Your task to perform on an android device: Open eBay Image 0: 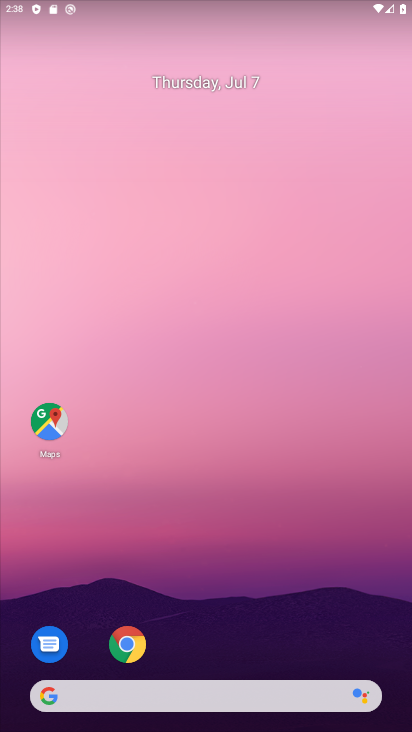
Step 0: click (103, 36)
Your task to perform on an android device: Open eBay Image 1: 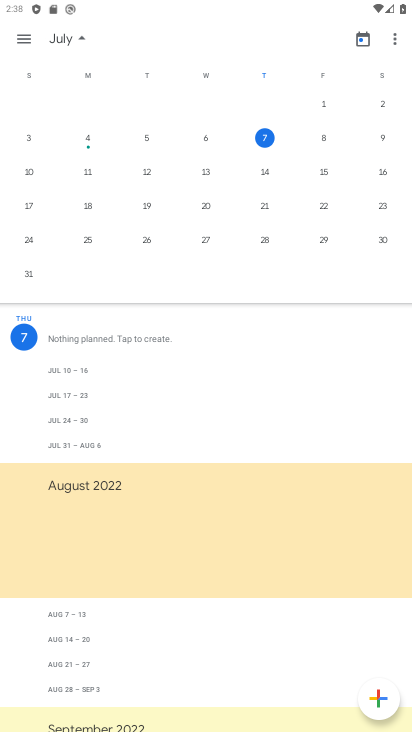
Step 1: press back button
Your task to perform on an android device: Open eBay Image 2: 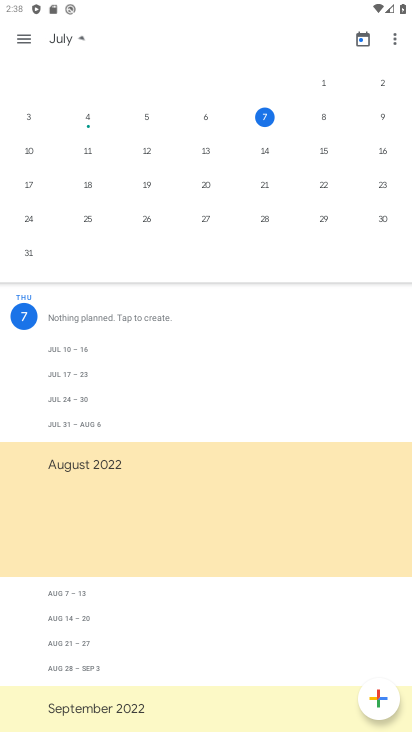
Step 2: press back button
Your task to perform on an android device: Open eBay Image 3: 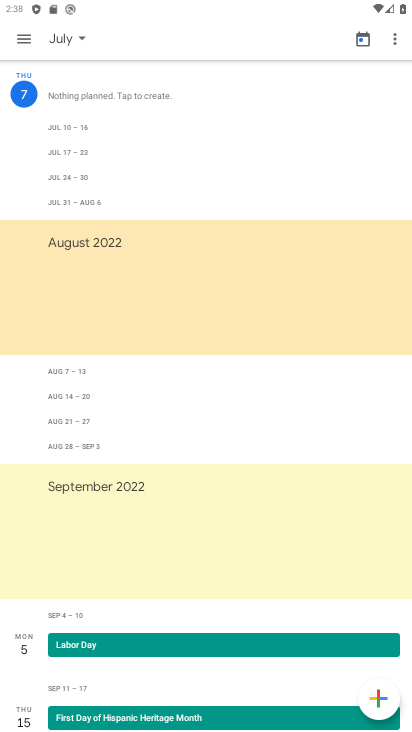
Step 3: press back button
Your task to perform on an android device: Open eBay Image 4: 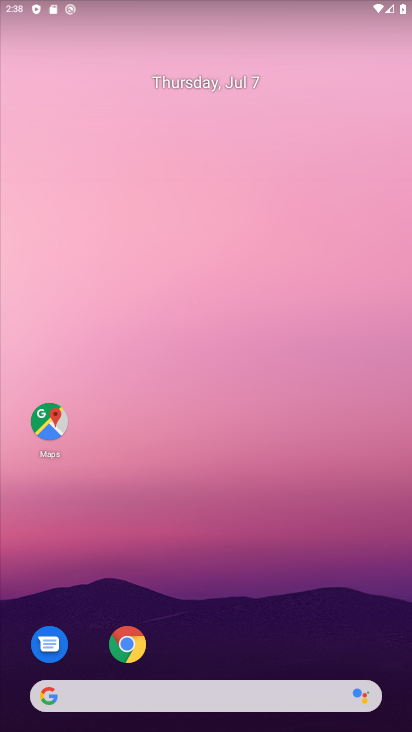
Step 4: press home button
Your task to perform on an android device: Open eBay Image 5: 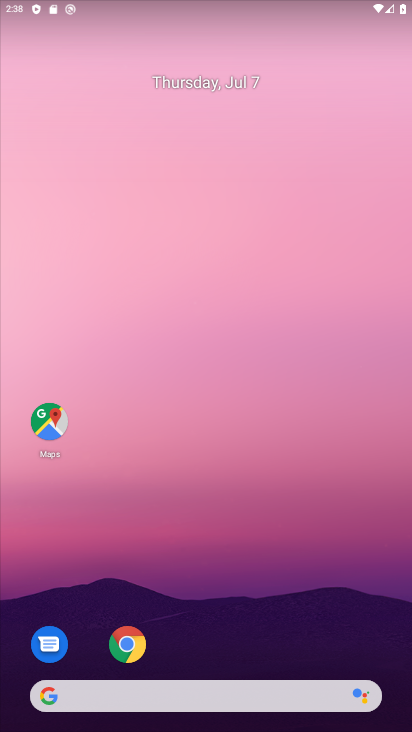
Step 5: press home button
Your task to perform on an android device: Open eBay Image 6: 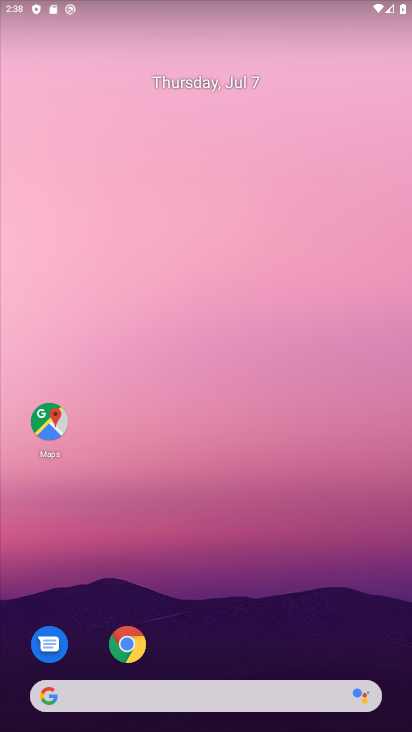
Step 6: drag from (291, 707) to (208, 331)
Your task to perform on an android device: Open eBay Image 7: 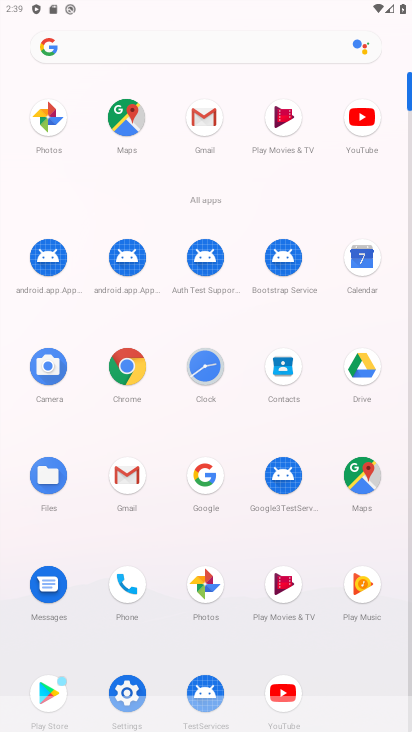
Step 7: click (136, 359)
Your task to perform on an android device: Open eBay Image 8: 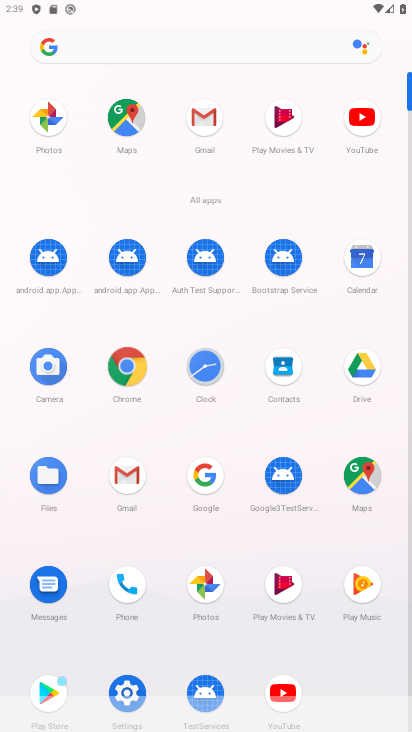
Step 8: click (136, 359)
Your task to perform on an android device: Open eBay Image 9: 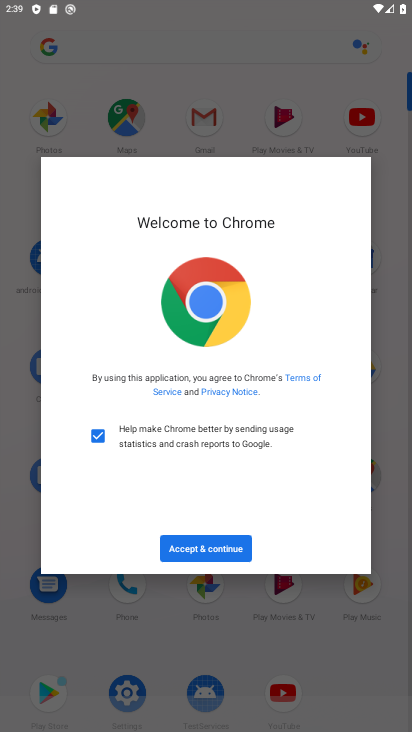
Step 9: click (205, 546)
Your task to perform on an android device: Open eBay Image 10: 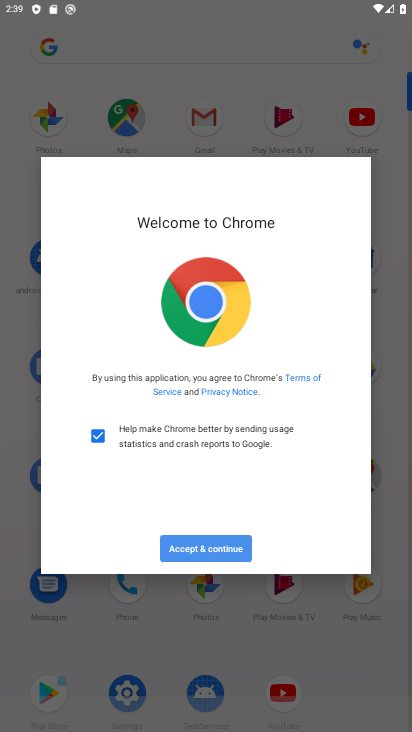
Step 10: click (206, 545)
Your task to perform on an android device: Open eBay Image 11: 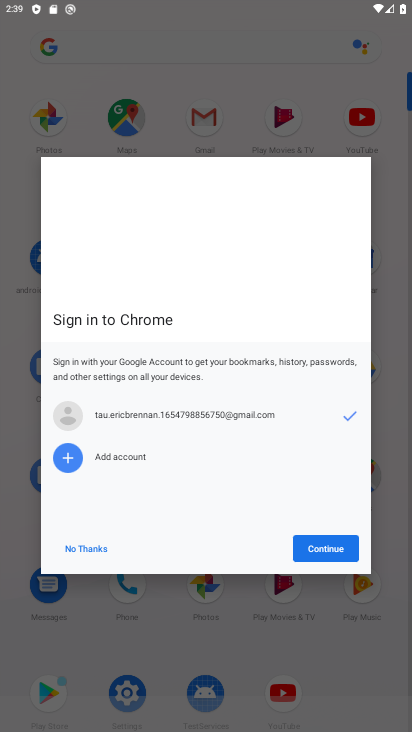
Step 11: click (206, 545)
Your task to perform on an android device: Open eBay Image 12: 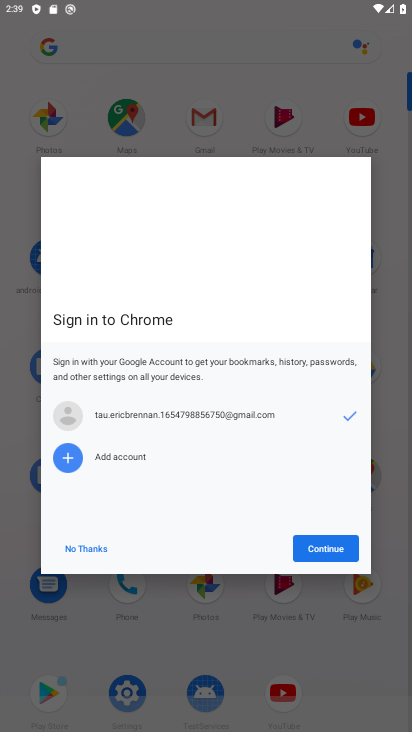
Step 12: click (206, 545)
Your task to perform on an android device: Open eBay Image 13: 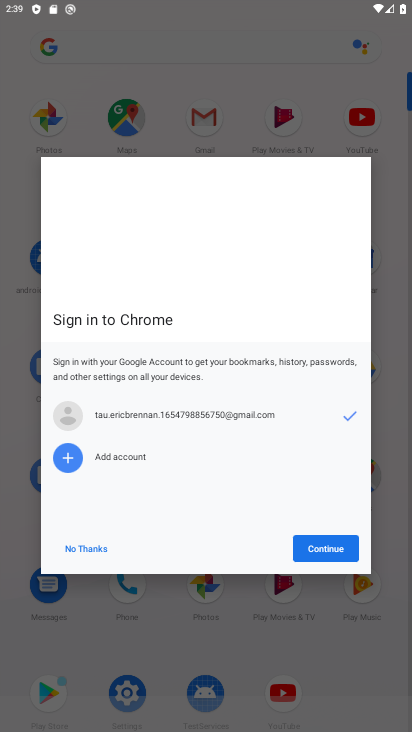
Step 13: click (206, 545)
Your task to perform on an android device: Open eBay Image 14: 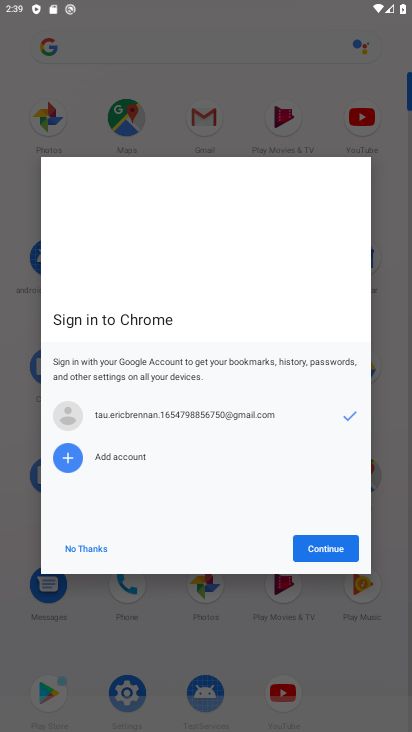
Step 14: click (323, 542)
Your task to perform on an android device: Open eBay Image 15: 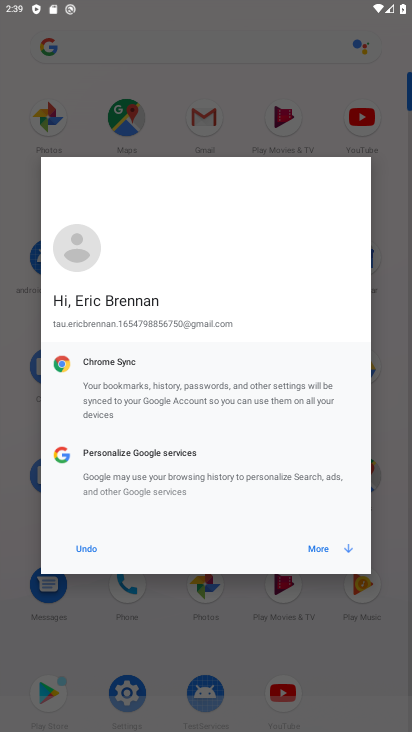
Step 15: click (326, 540)
Your task to perform on an android device: Open eBay Image 16: 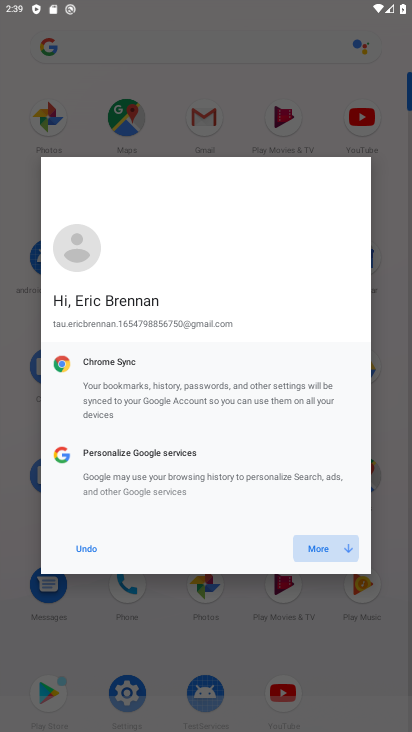
Step 16: click (331, 536)
Your task to perform on an android device: Open eBay Image 17: 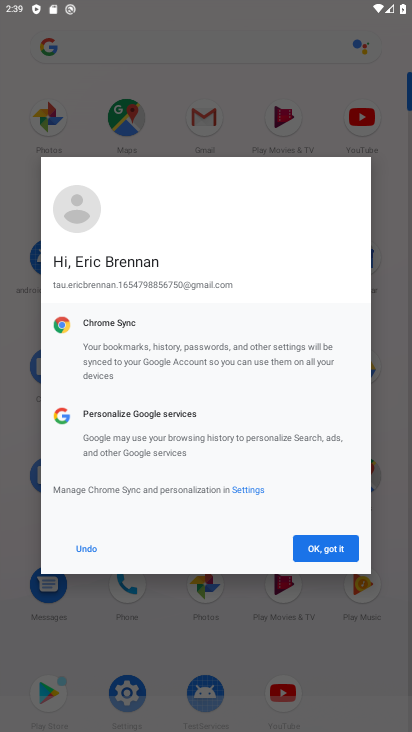
Step 17: click (333, 535)
Your task to perform on an android device: Open eBay Image 18: 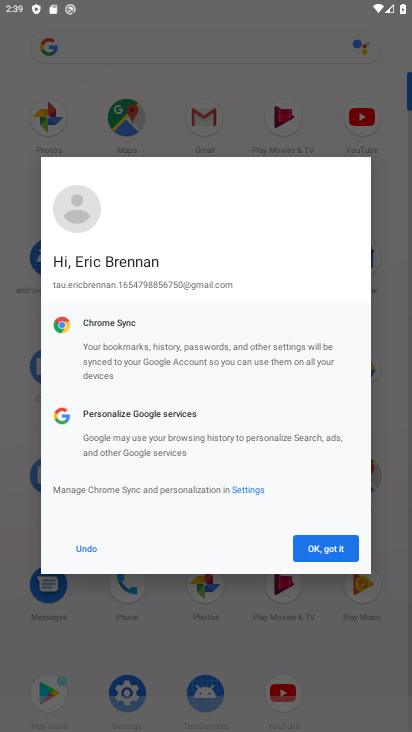
Step 18: click (343, 546)
Your task to perform on an android device: Open eBay Image 19: 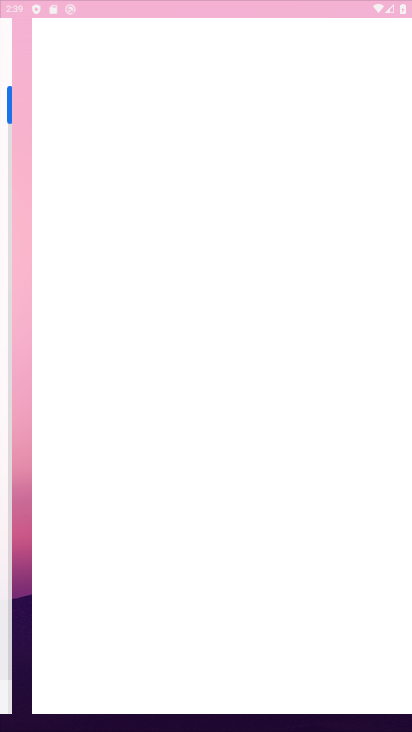
Step 19: click (343, 546)
Your task to perform on an android device: Open eBay Image 20: 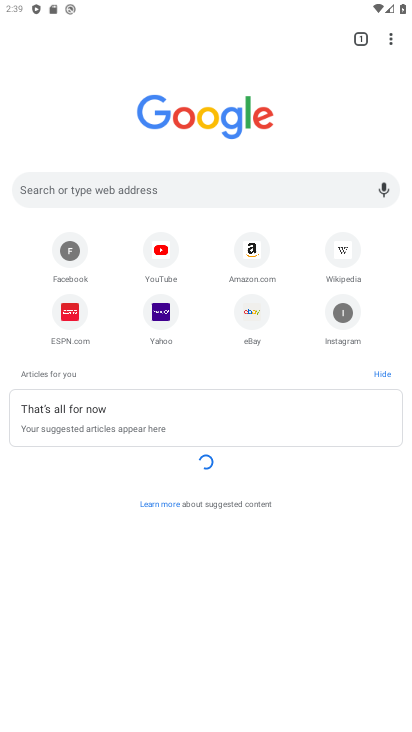
Step 20: click (255, 306)
Your task to perform on an android device: Open eBay Image 21: 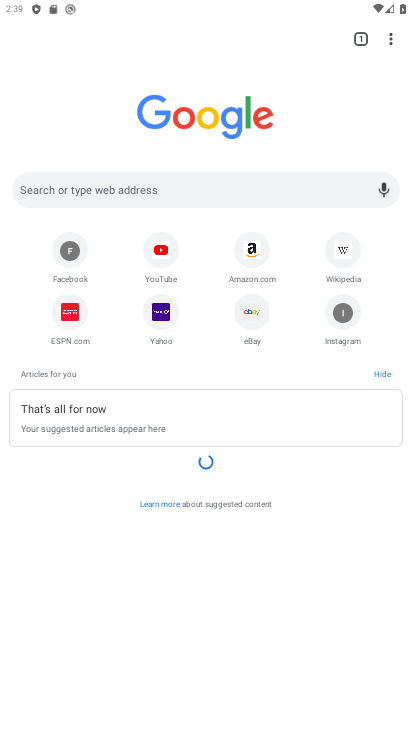
Step 21: click (256, 307)
Your task to perform on an android device: Open eBay Image 22: 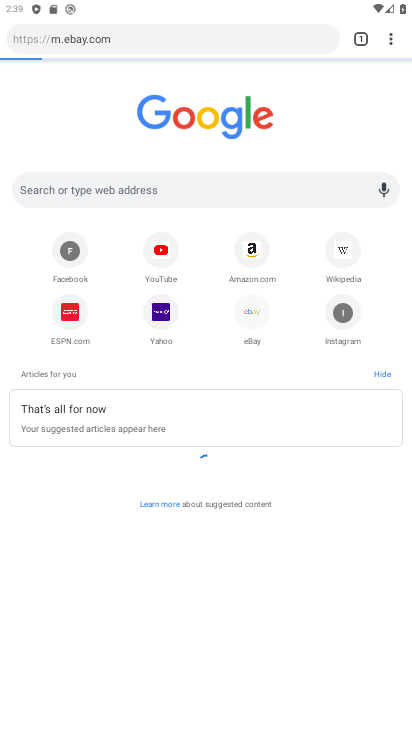
Step 22: click (257, 307)
Your task to perform on an android device: Open eBay Image 23: 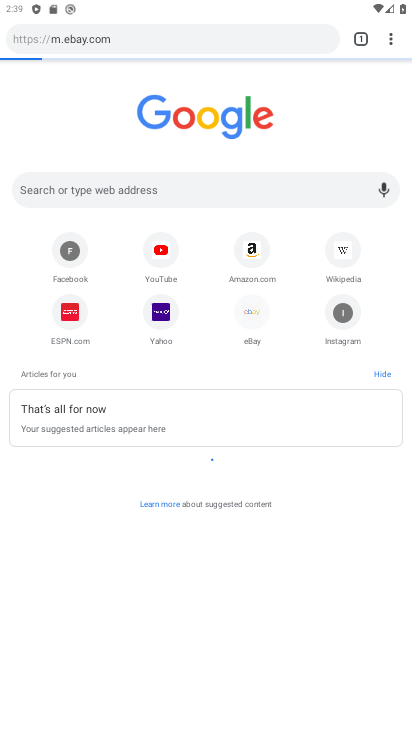
Step 23: click (257, 307)
Your task to perform on an android device: Open eBay Image 24: 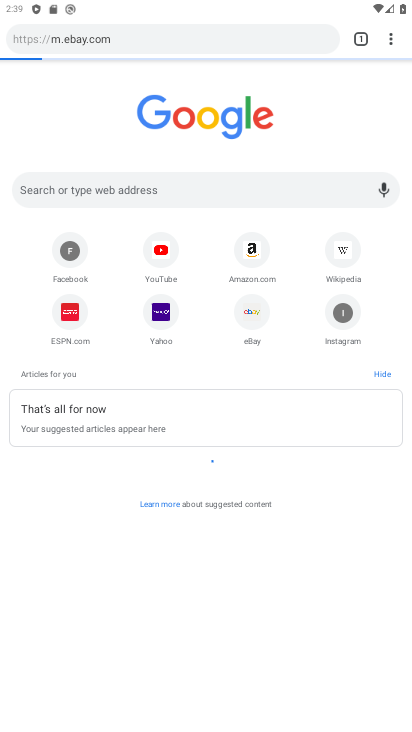
Step 24: click (257, 307)
Your task to perform on an android device: Open eBay Image 25: 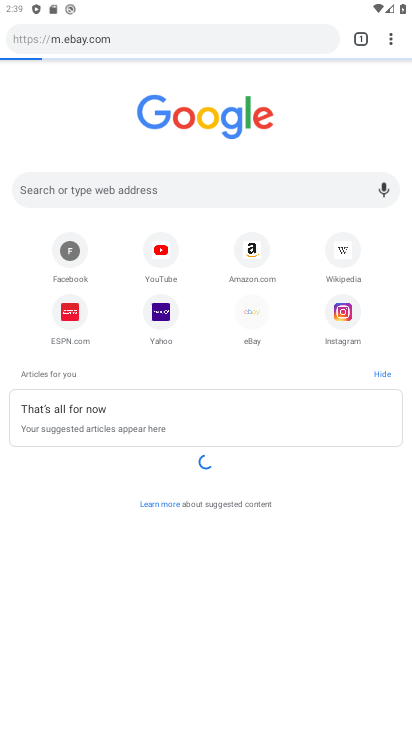
Step 25: click (260, 307)
Your task to perform on an android device: Open eBay Image 26: 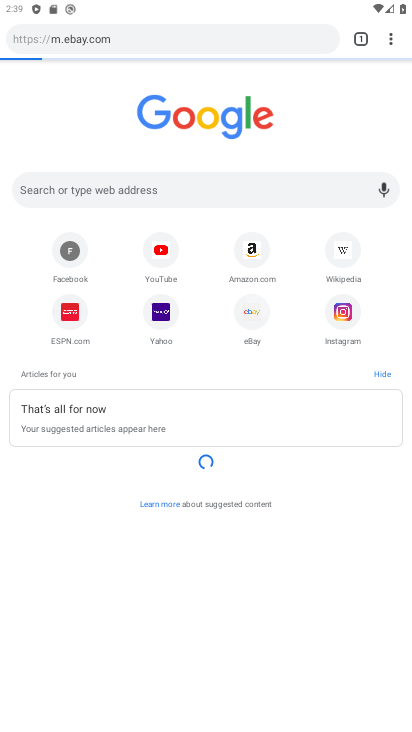
Step 26: click (261, 304)
Your task to perform on an android device: Open eBay Image 27: 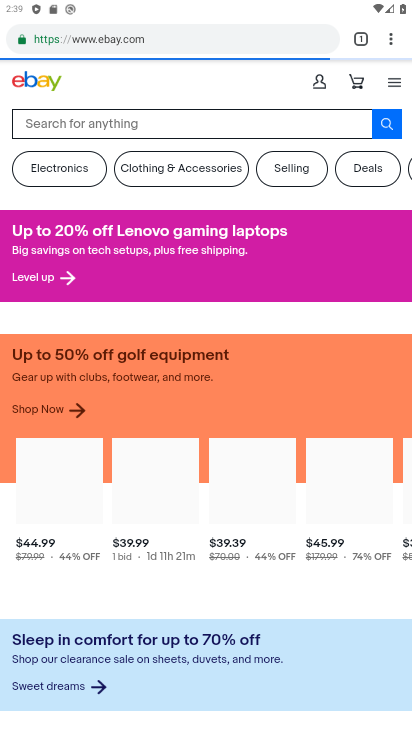
Step 27: task complete